Your task to perform on an android device: toggle pop-ups in chrome Image 0: 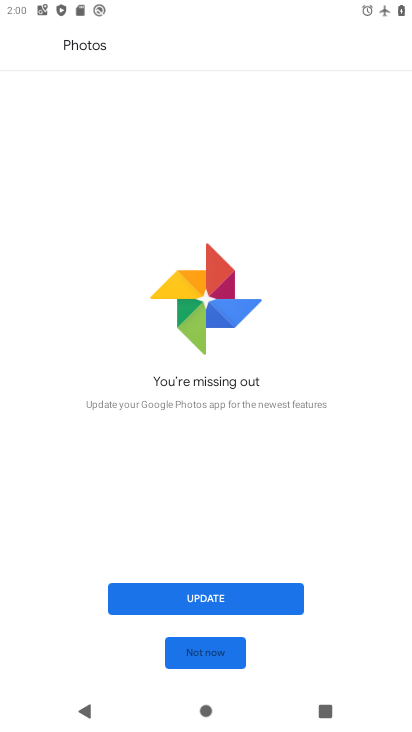
Step 0: press home button
Your task to perform on an android device: toggle pop-ups in chrome Image 1: 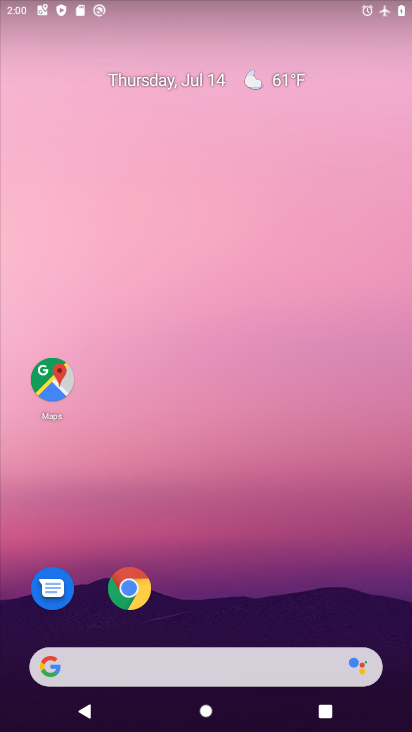
Step 1: drag from (212, 628) to (215, 309)
Your task to perform on an android device: toggle pop-ups in chrome Image 2: 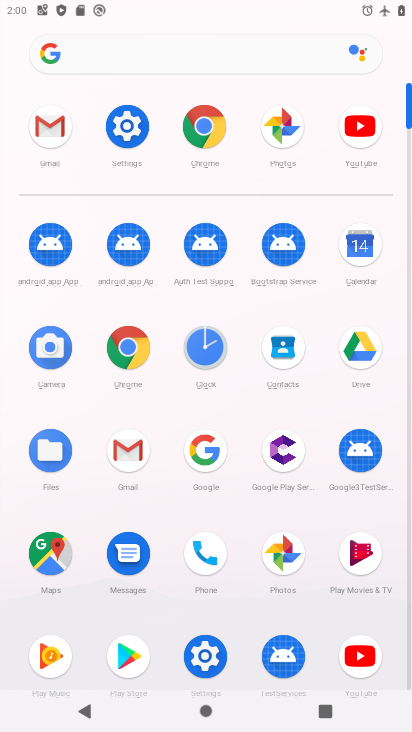
Step 2: click (200, 122)
Your task to perform on an android device: toggle pop-ups in chrome Image 3: 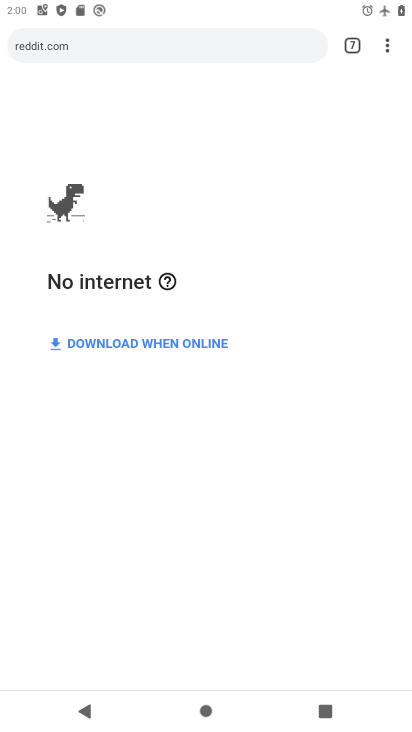
Step 3: click (392, 45)
Your task to perform on an android device: toggle pop-ups in chrome Image 4: 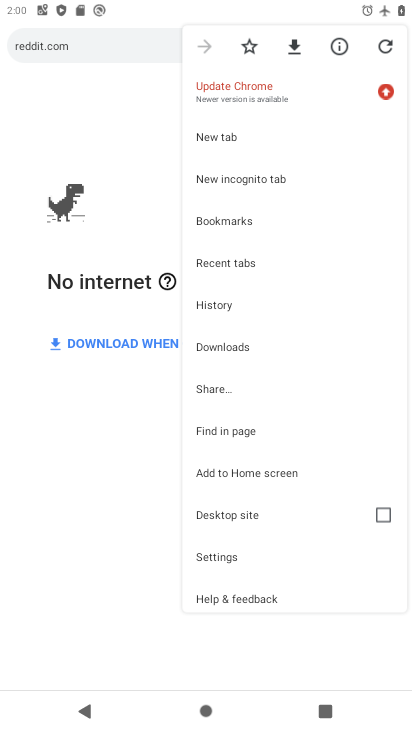
Step 4: click (220, 560)
Your task to perform on an android device: toggle pop-ups in chrome Image 5: 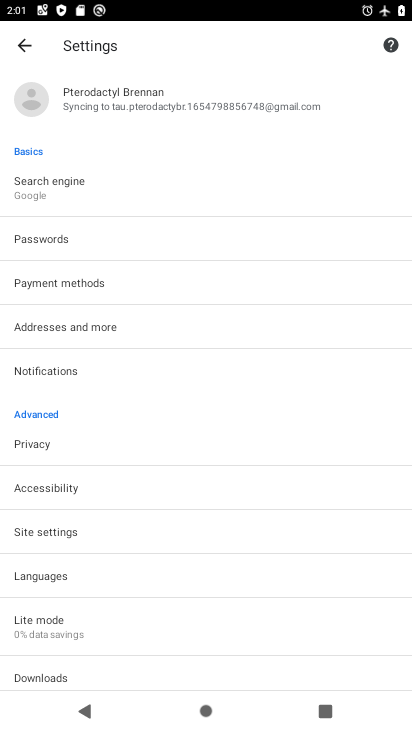
Step 5: click (83, 528)
Your task to perform on an android device: toggle pop-ups in chrome Image 6: 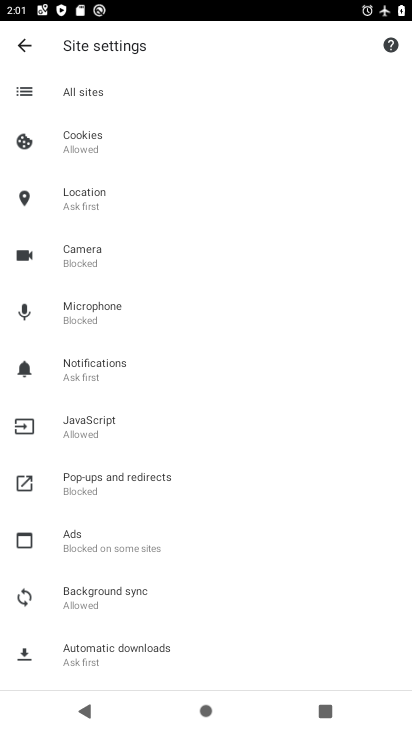
Step 6: click (153, 491)
Your task to perform on an android device: toggle pop-ups in chrome Image 7: 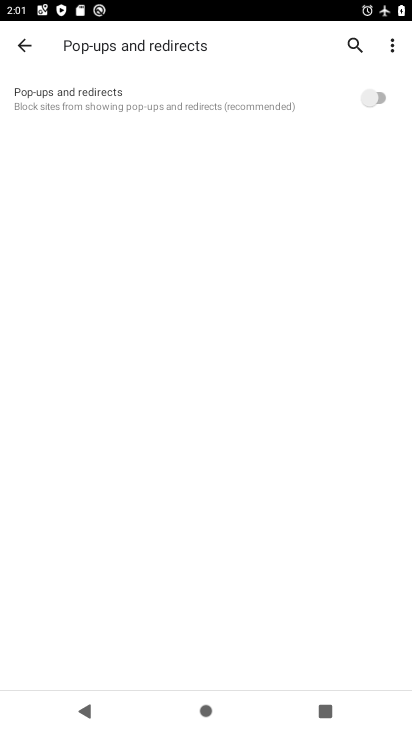
Step 7: click (385, 96)
Your task to perform on an android device: toggle pop-ups in chrome Image 8: 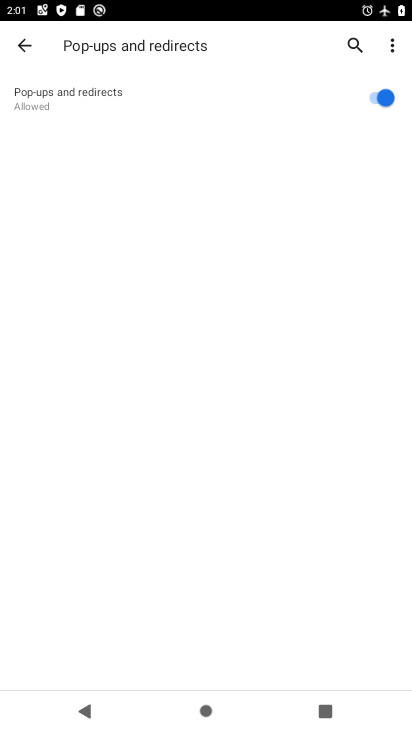
Step 8: task complete